Your task to perform on an android device: turn off airplane mode Image 0: 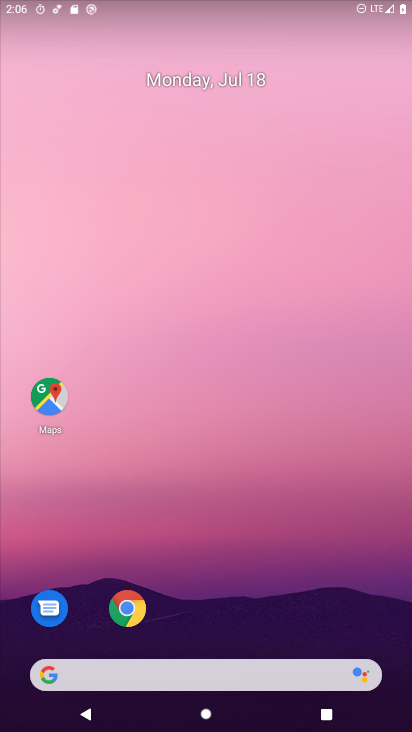
Step 0: drag from (233, 724) to (232, 104)
Your task to perform on an android device: turn off airplane mode Image 1: 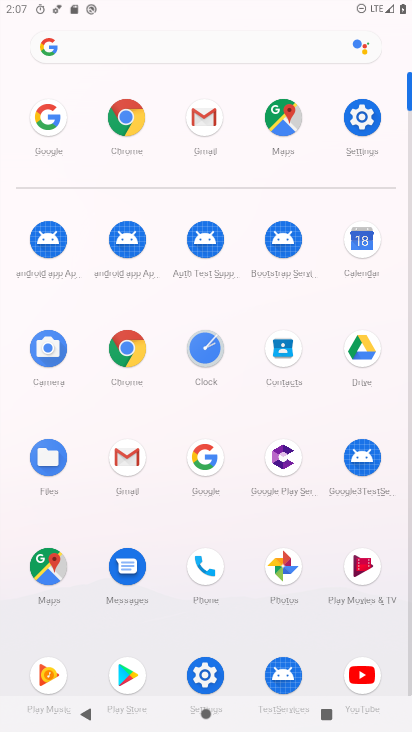
Step 1: click (364, 120)
Your task to perform on an android device: turn off airplane mode Image 2: 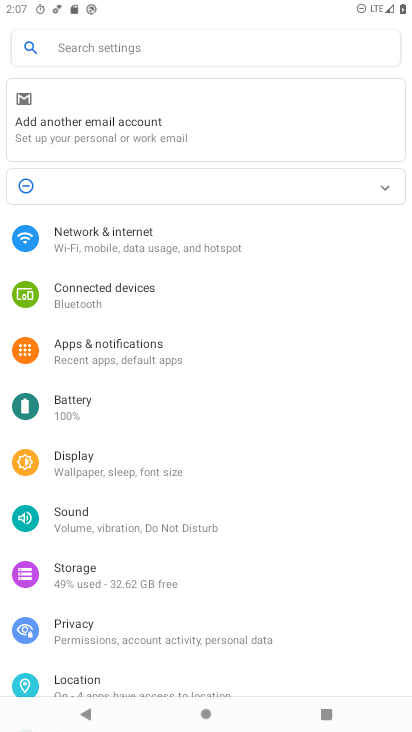
Step 2: click (89, 236)
Your task to perform on an android device: turn off airplane mode Image 3: 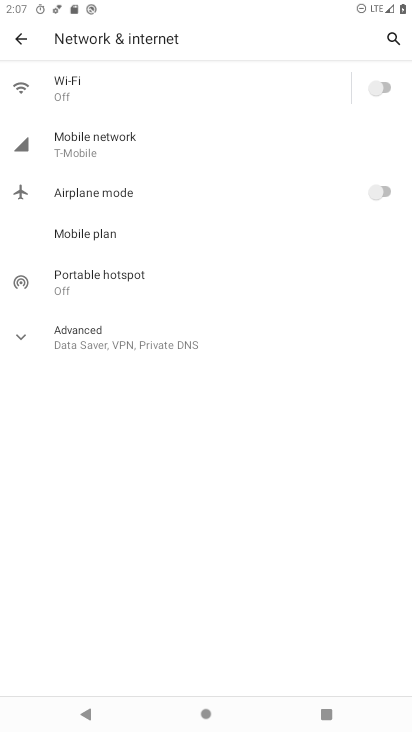
Step 3: task complete